Your task to perform on an android device: check the backup settings in the google photos Image 0: 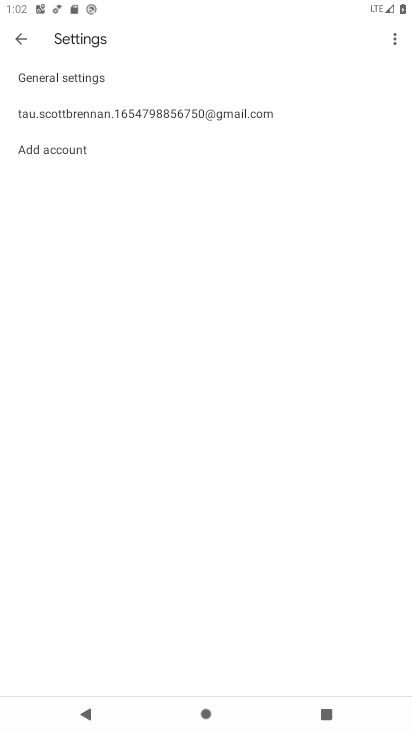
Step 0: press home button
Your task to perform on an android device: check the backup settings in the google photos Image 1: 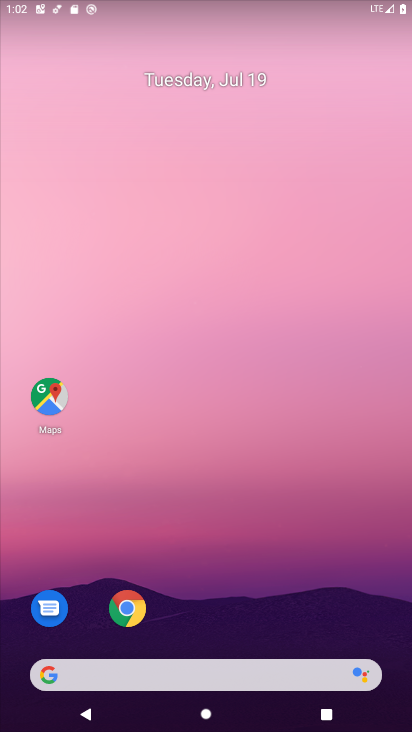
Step 1: drag from (299, 614) to (266, 50)
Your task to perform on an android device: check the backup settings in the google photos Image 2: 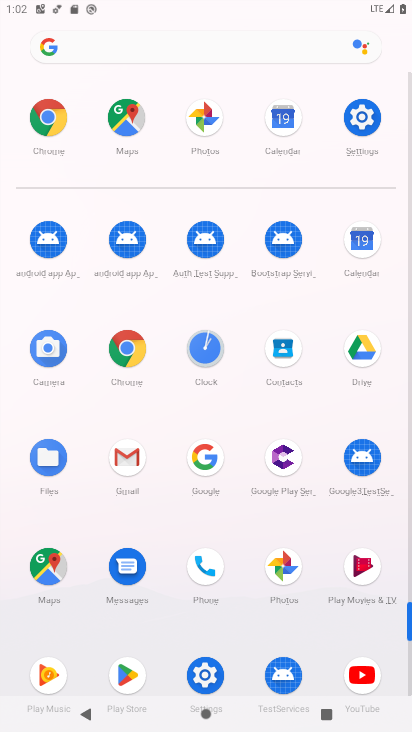
Step 2: click (288, 569)
Your task to perform on an android device: check the backup settings in the google photos Image 3: 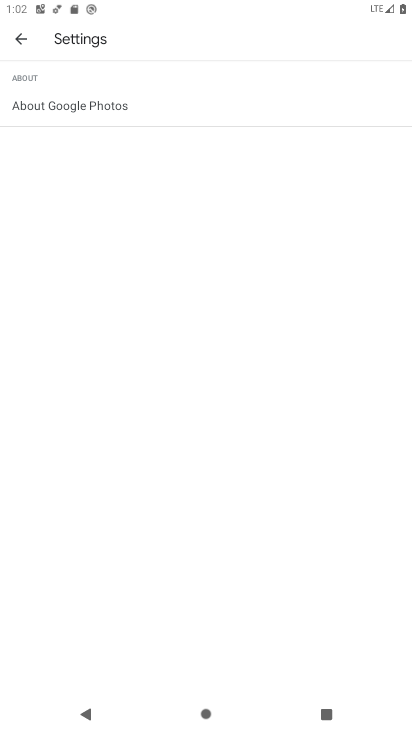
Step 3: press back button
Your task to perform on an android device: check the backup settings in the google photos Image 4: 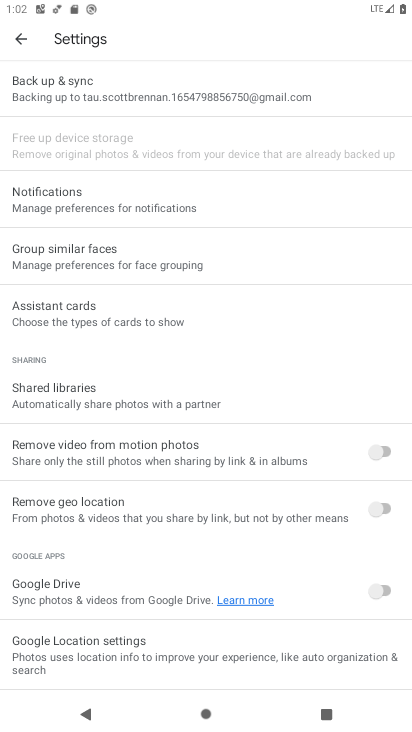
Step 4: click (161, 75)
Your task to perform on an android device: check the backup settings in the google photos Image 5: 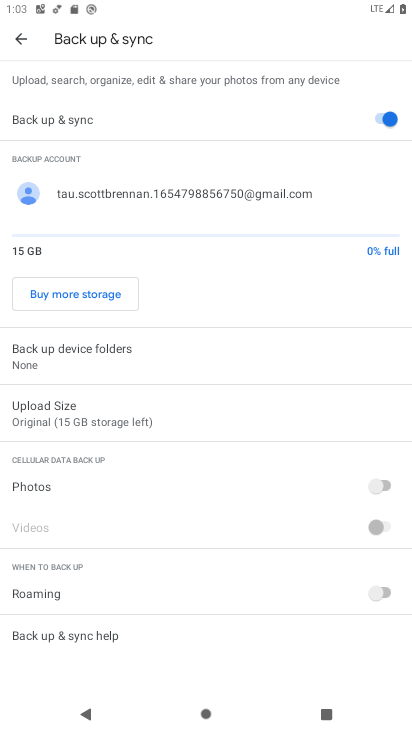
Step 5: task complete